Your task to perform on an android device: open a bookmark in the chrome app Image 0: 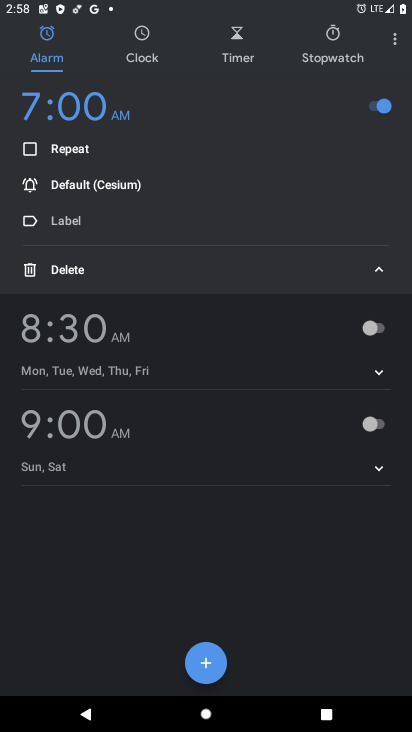
Step 0: press home button
Your task to perform on an android device: open a bookmark in the chrome app Image 1: 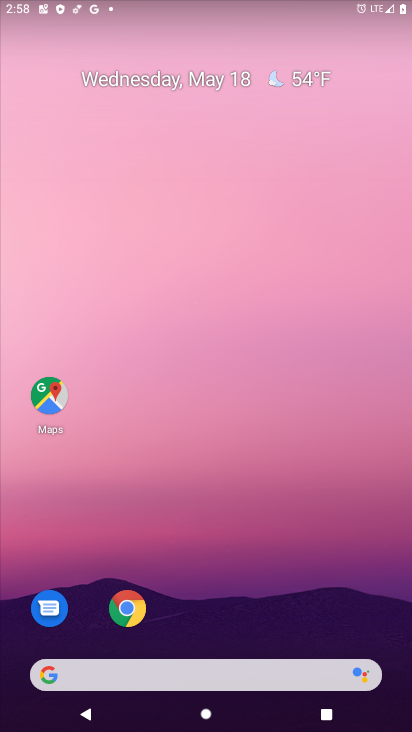
Step 1: click (131, 614)
Your task to perform on an android device: open a bookmark in the chrome app Image 2: 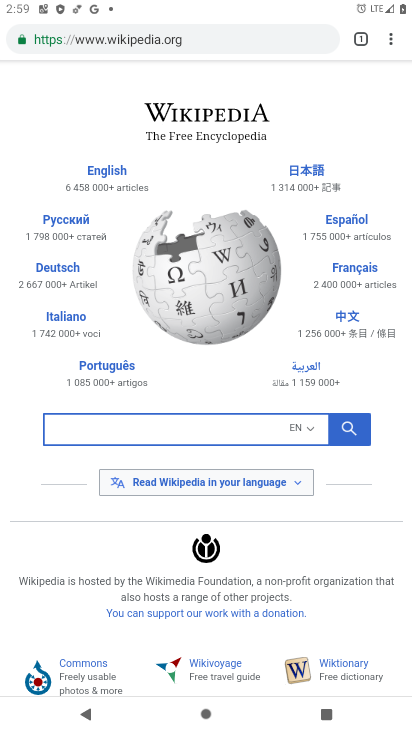
Step 2: click (393, 34)
Your task to perform on an android device: open a bookmark in the chrome app Image 3: 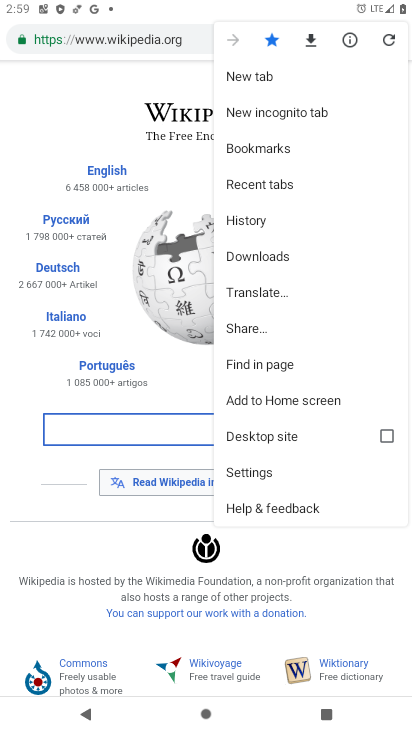
Step 3: click (249, 149)
Your task to perform on an android device: open a bookmark in the chrome app Image 4: 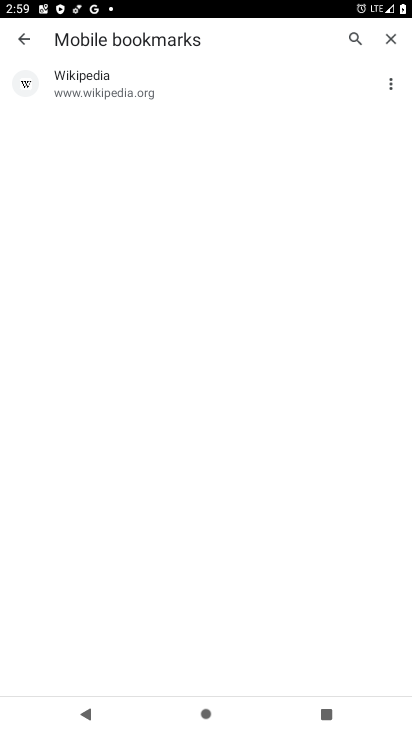
Step 4: click (120, 95)
Your task to perform on an android device: open a bookmark in the chrome app Image 5: 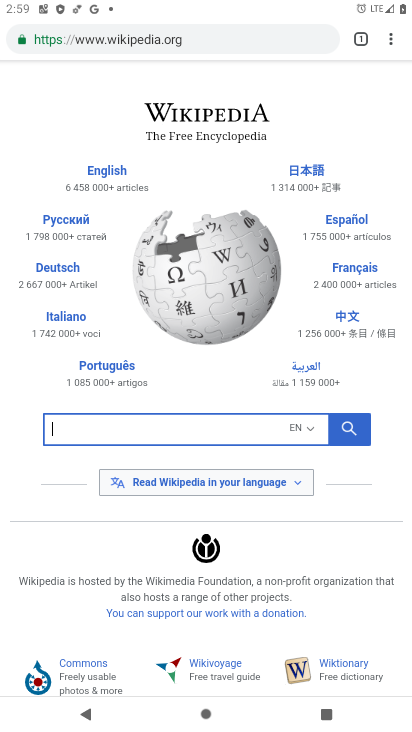
Step 5: task complete